Your task to perform on an android device: set an alarm Image 0: 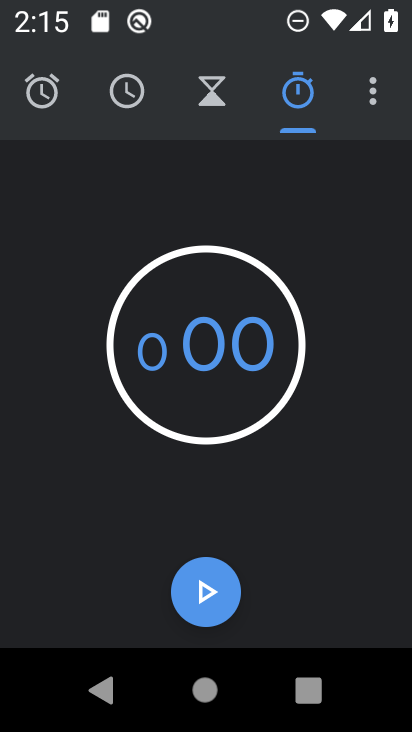
Step 0: click (59, 94)
Your task to perform on an android device: set an alarm Image 1: 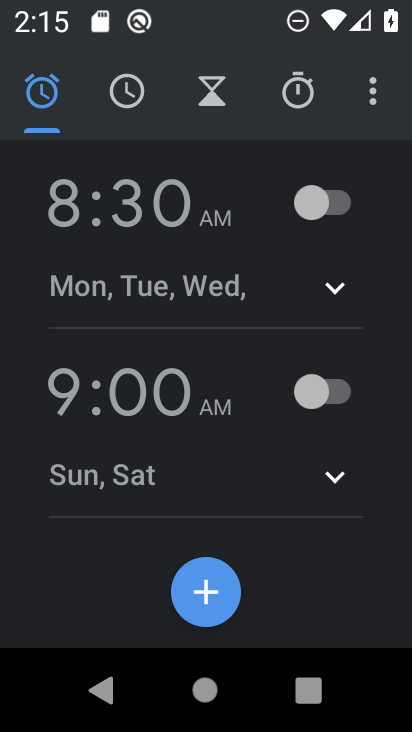
Step 1: click (196, 604)
Your task to perform on an android device: set an alarm Image 2: 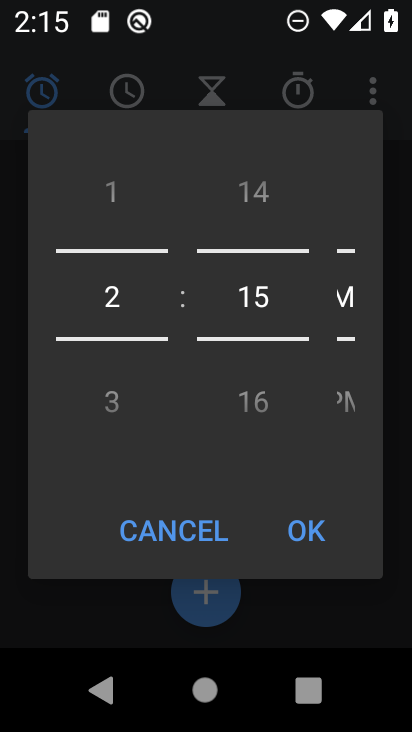
Step 2: click (304, 541)
Your task to perform on an android device: set an alarm Image 3: 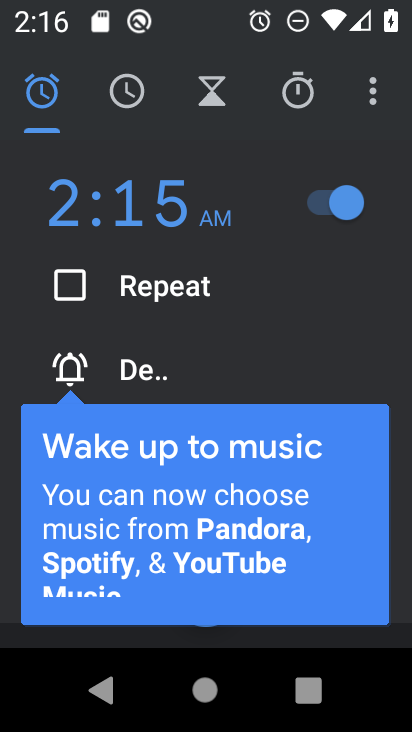
Step 3: task complete